Your task to perform on an android device: Open battery settings Image 0: 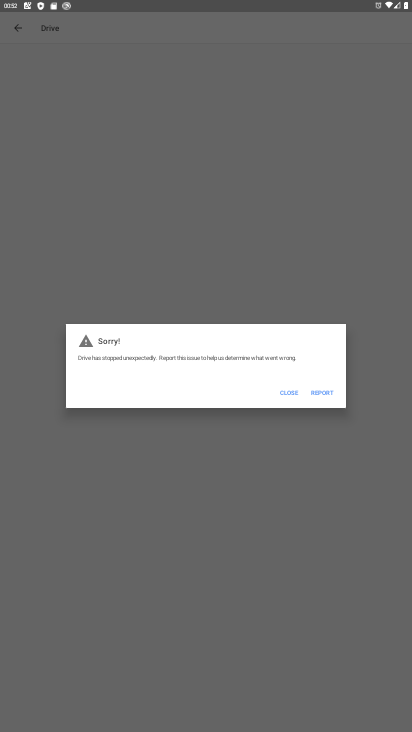
Step 0: press home button
Your task to perform on an android device: Open battery settings Image 1: 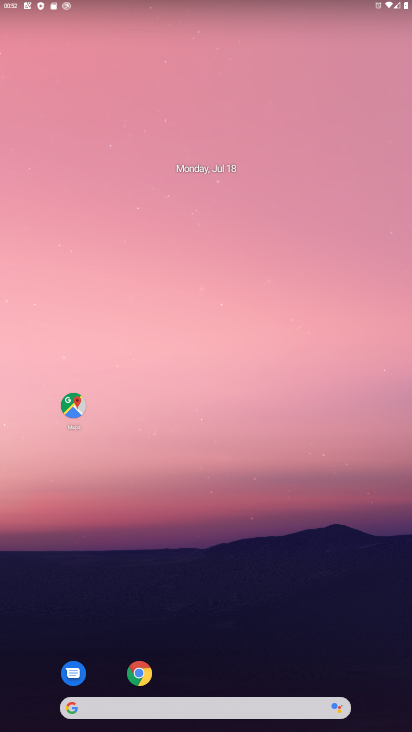
Step 1: drag from (216, 671) to (183, 136)
Your task to perform on an android device: Open battery settings Image 2: 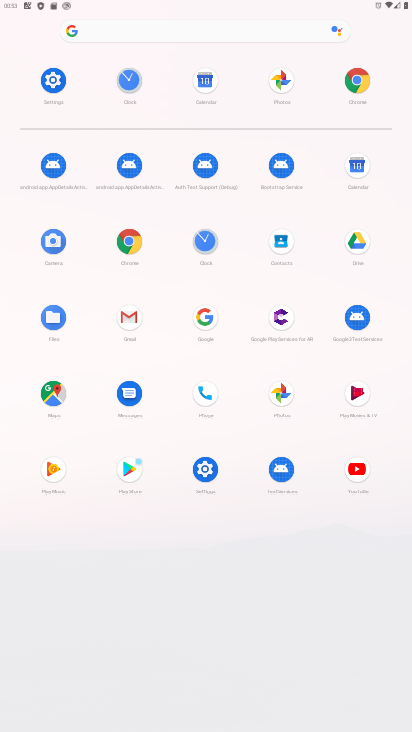
Step 2: click (201, 459)
Your task to perform on an android device: Open battery settings Image 3: 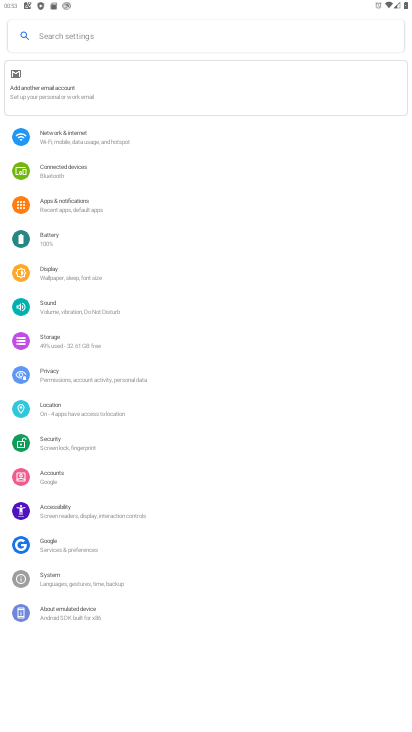
Step 3: click (80, 240)
Your task to perform on an android device: Open battery settings Image 4: 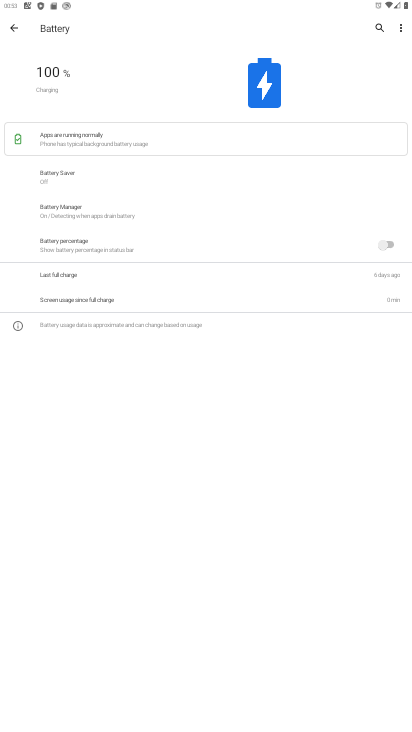
Step 4: task complete